Your task to perform on an android device: turn pop-ups on in chrome Image 0: 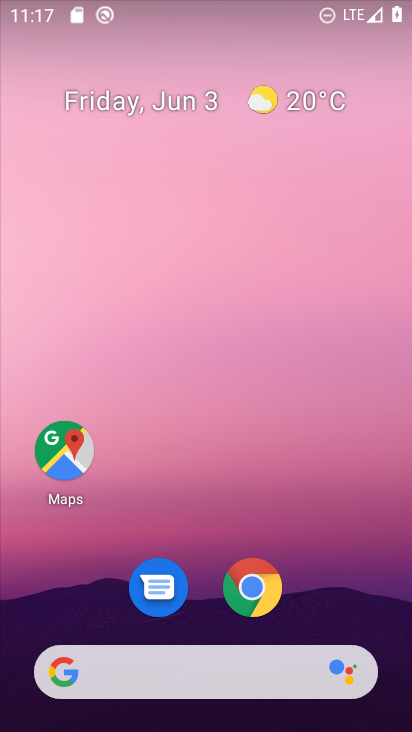
Step 0: click (262, 605)
Your task to perform on an android device: turn pop-ups on in chrome Image 1: 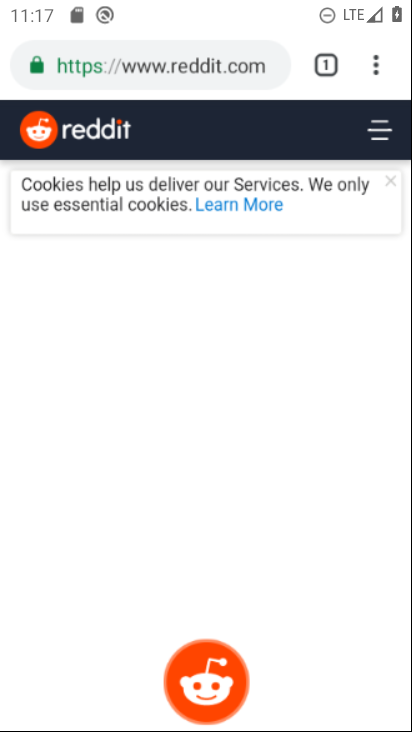
Step 1: click (377, 73)
Your task to perform on an android device: turn pop-ups on in chrome Image 2: 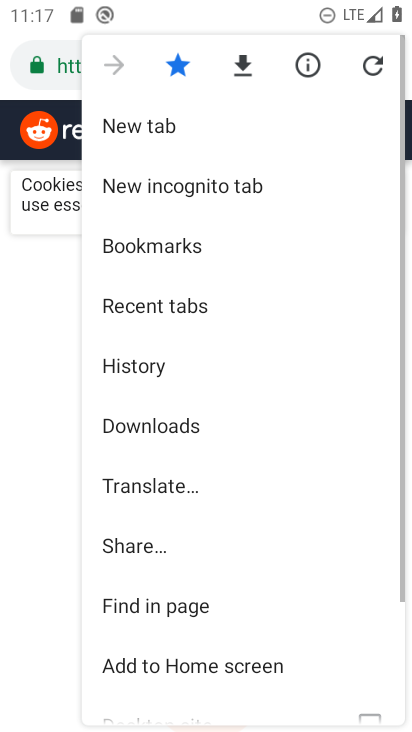
Step 2: drag from (239, 126) to (247, 64)
Your task to perform on an android device: turn pop-ups on in chrome Image 3: 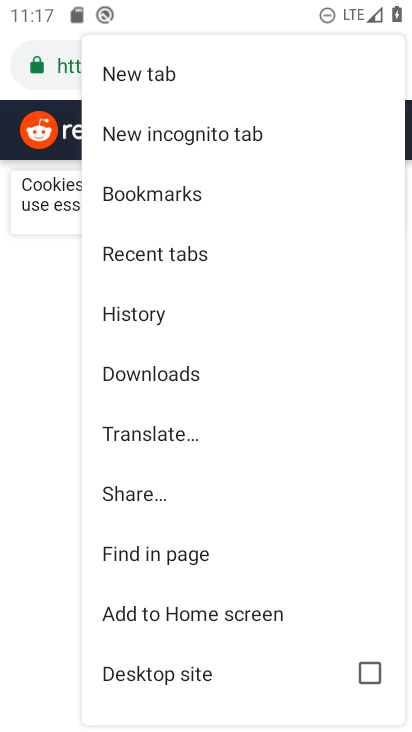
Step 3: drag from (260, 430) to (260, 134)
Your task to perform on an android device: turn pop-ups on in chrome Image 4: 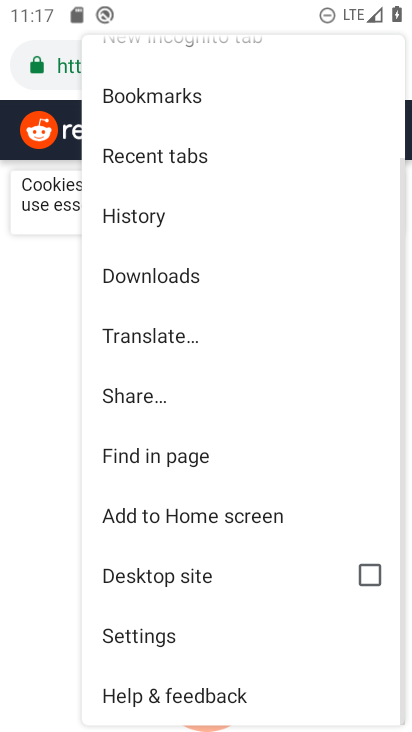
Step 4: click (190, 641)
Your task to perform on an android device: turn pop-ups on in chrome Image 5: 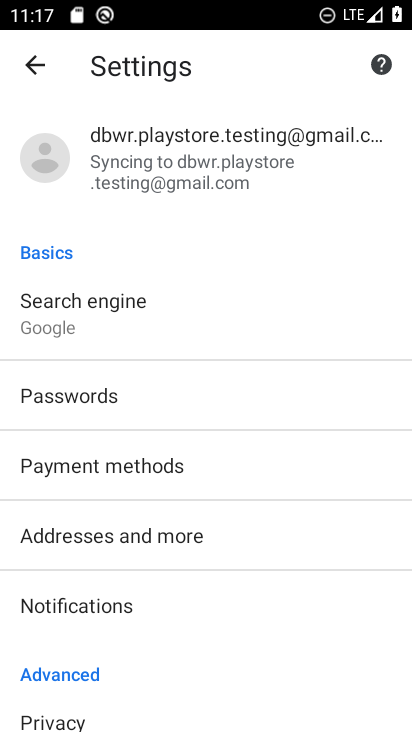
Step 5: drag from (237, 567) to (249, 279)
Your task to perform on an android device: turn pop-ups on in chrome Image 6: 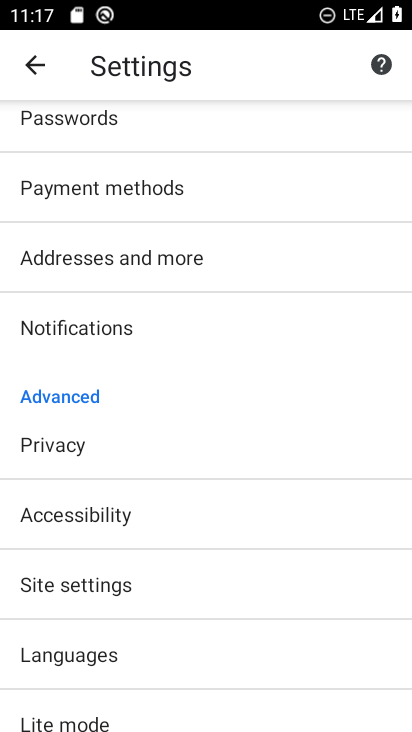
Step 6: drag from (181, 316) to (171, 619)
Your task to perform on an android device: turn pop-ups on in chrome Image 7: 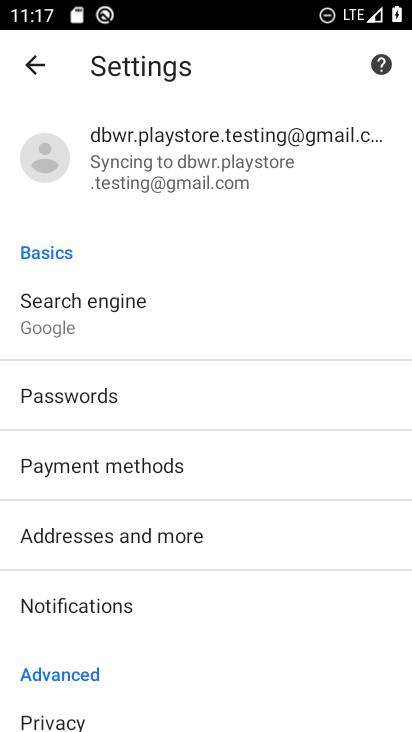
Step 7: click (193, 52)
Your task to perform on an android device: turn pop-ups on in chrome Image 8: 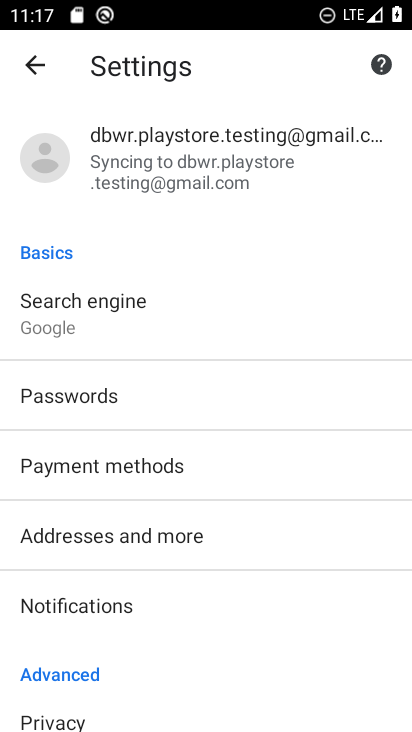
Step 8: drag from (181, 620) to (208, 147)
Your task to perform on an android device: turn pop-ups on in chrome Image 9: 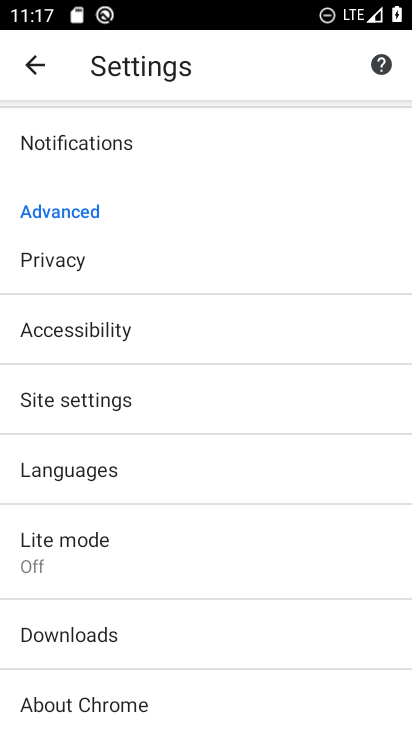
Step 9: click (165, 412)
Your task to perform on an android device: turn pop-ups on in chrome Image 10: 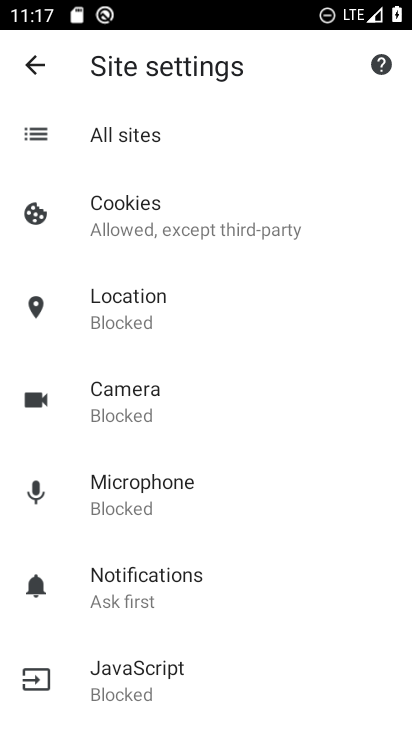
Step 10: drag from (204, 596) to (190, 295)
Your task to perform on an android device: turn pop-ups on in chrome Image 11: 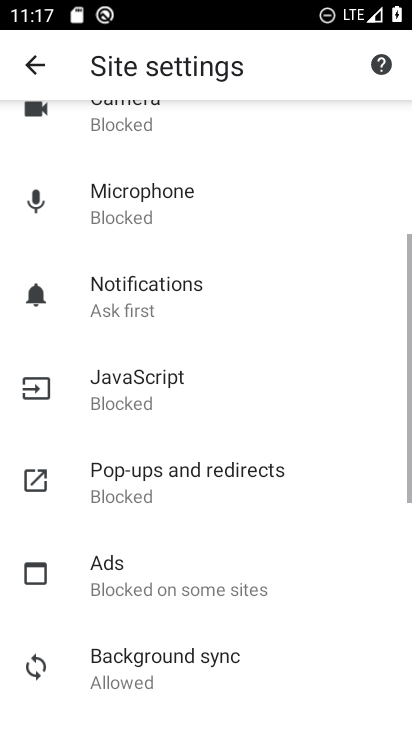
Step 11: click (198, 486)
Your task to perform on an android device: turn pop-ups on in chrome Image 12: 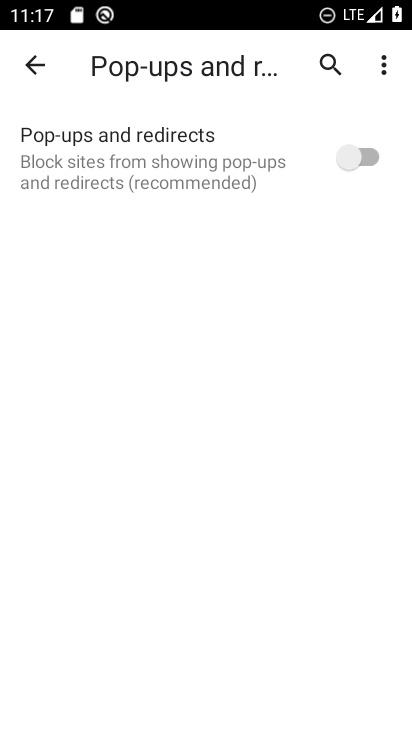
Step 12: click (353, 166)
Your task to perform on an android device: turn pop-ups on in chrome Image 13: 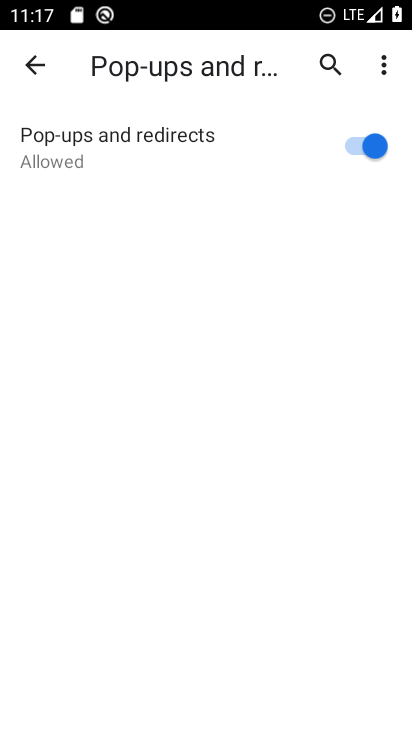
Step 13: task complete